Your task to perform on an android device: Go to calendar. Show me events next week Image 0: 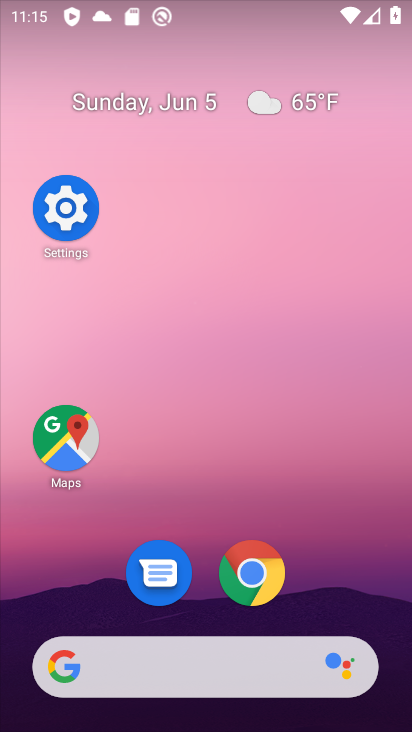
Step 0: drag from (353, 585) to (396, 192)
Your task to perform on an android device: Go to calendar. Show me events next week Image 1: 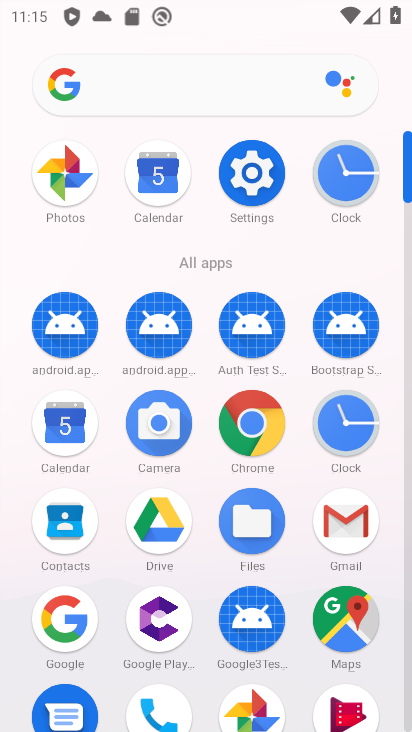
Step 1: click (148, 184)
Your task to perform on an android device: Go to calendar. Show me events next week Image 2: 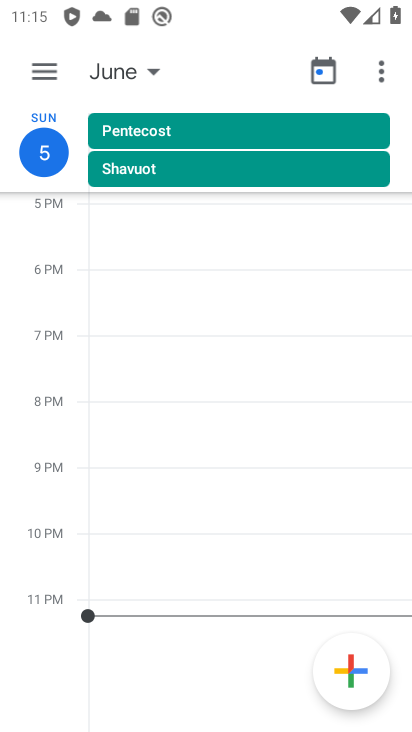
Step 2: click (43, 78)
Your task to perform on an android device: Go to calendar. Show me events next week Image 3: 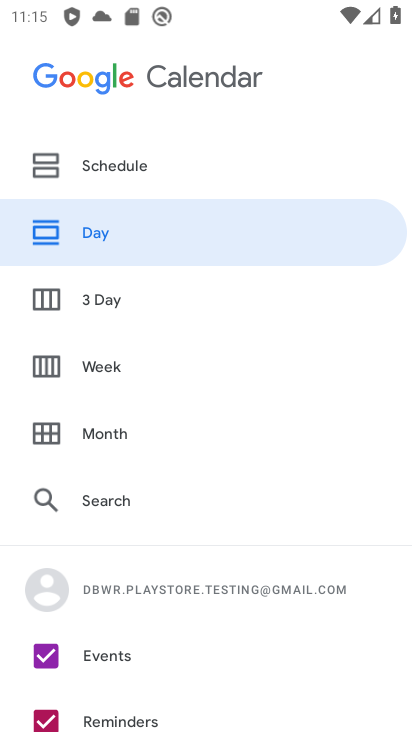
Step 3: click (126, 369)
Your task to perform on an android device: Go to calendar. Show me events next week Image 4: 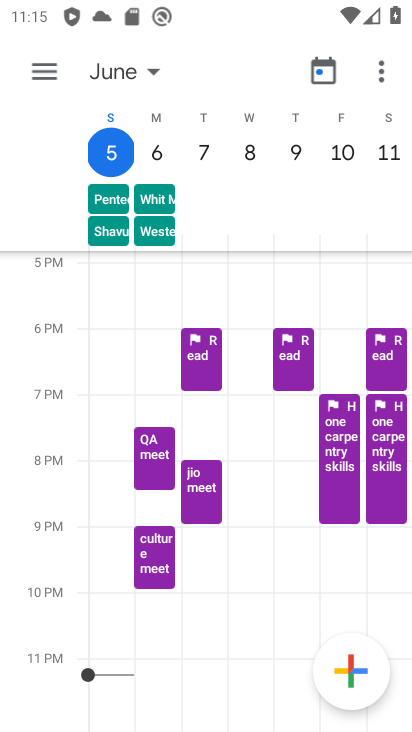
Step 4: task complete